Your task to perform on an android device: open a bookmark in the chrome app Image 0: 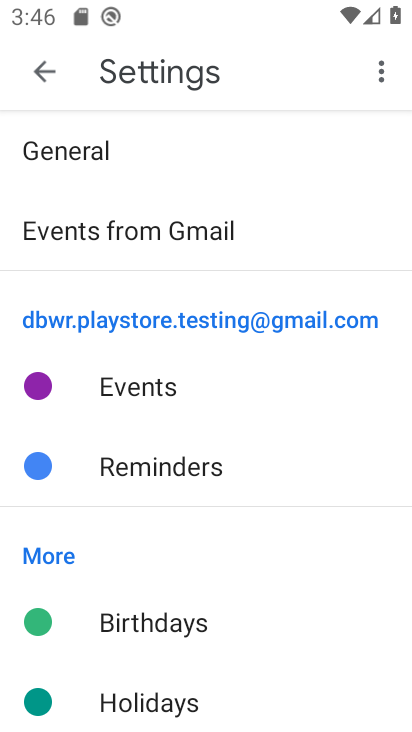
Step 0: press home button
Your task to perform on an android device: open a bookmark in the chrome app Image 1: 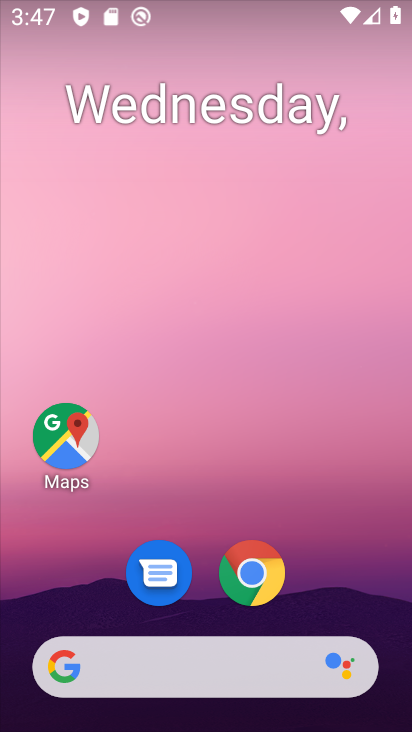
Step 1: click (267, 563)
Your task to perform on an android device: open a bookmark in the chrome app Image 2: 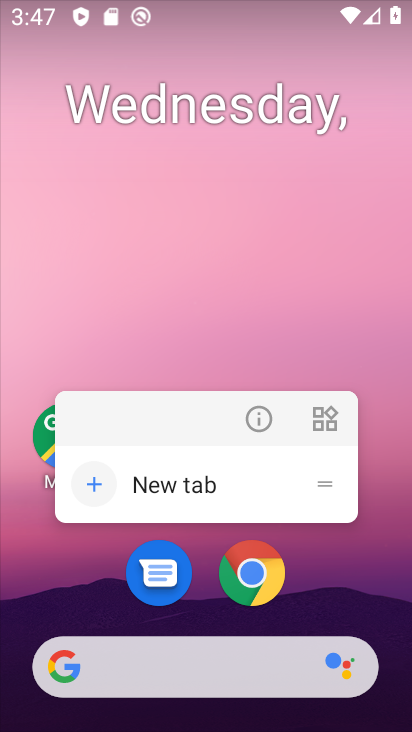
Step 2: click (267, 563)
Your task to perform on an android device: open a bookmark in the chrome app Image 3: 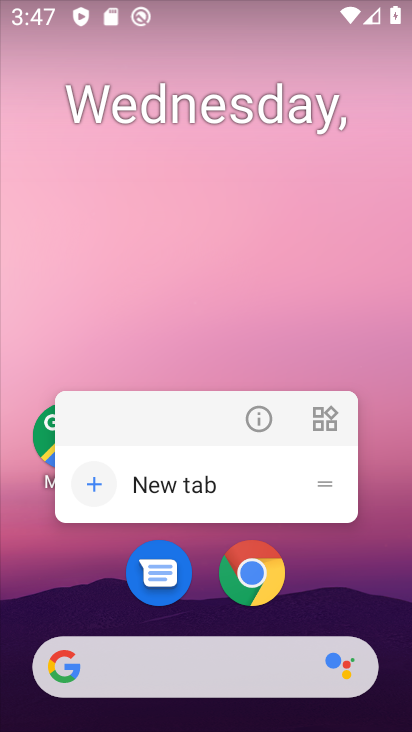
Step 3: click (267, 563)
Your task to perform on an android device: open a bookmark in the chrome app Image 4: 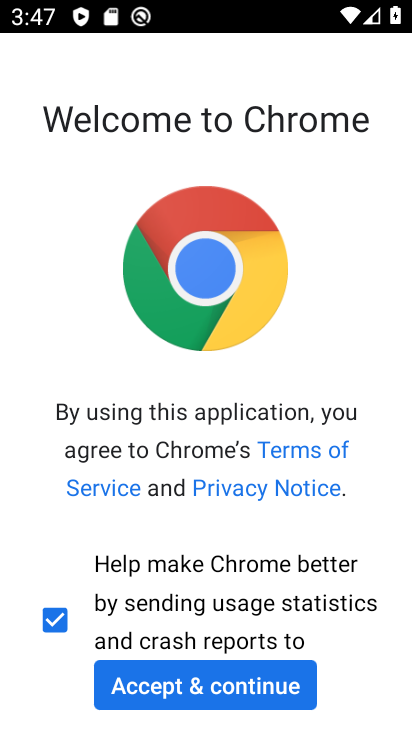
Step 4: click (279, 682)
Your task to perform on an android device: open a bookmark in the chrome app Image 5: 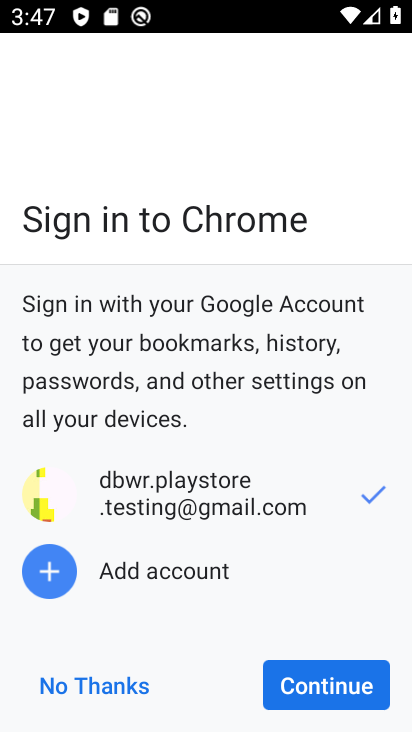
Step 5: click (331, 677)
Your task to perform on an android device: open a bookmark in the chrome app Image 6: 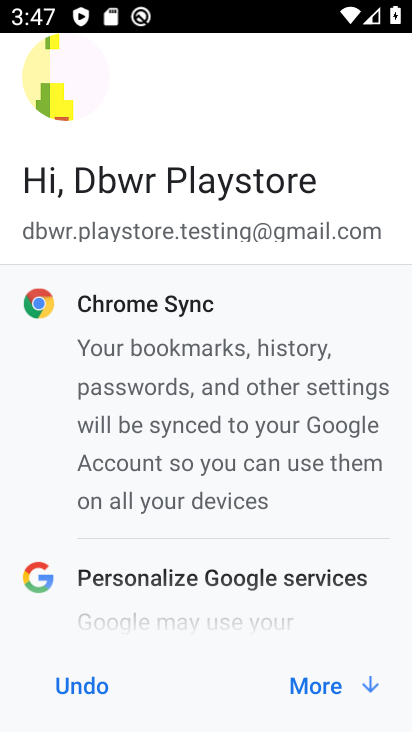
Step 6: click (318, 678)
Your task to perform on an android device: open a bookmark in the chrome app Image 7: 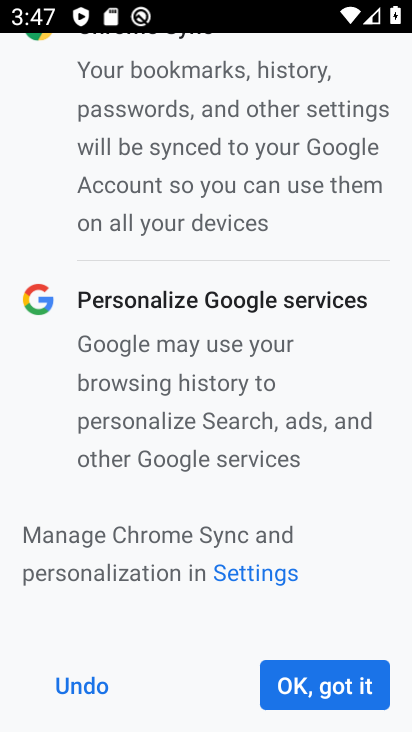
Step 7: click (318, 678)
Your task to perform on an android device: open a bookmark in the chrome app Image 8: 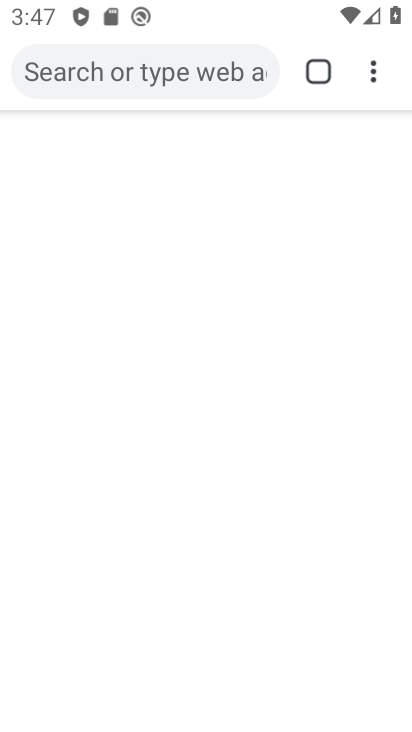
Step 8: click (318, 678)
Your task to perform on an android device: open a bookmark in the chrome app Image 9: 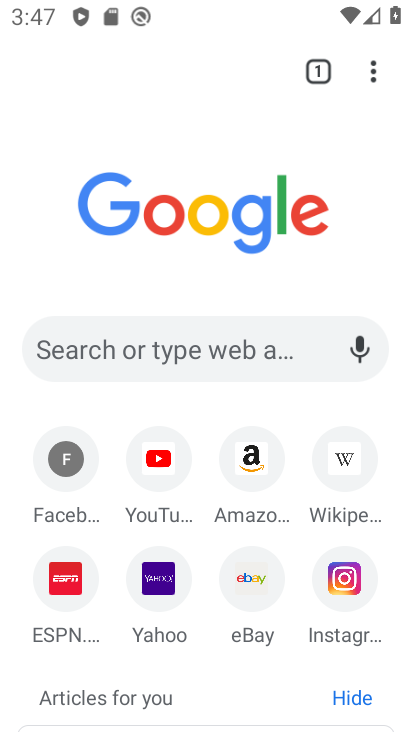
Step 9: click (366, 63)
Your task to perform on an android device: open a bookmark in the chrome app Image 10: 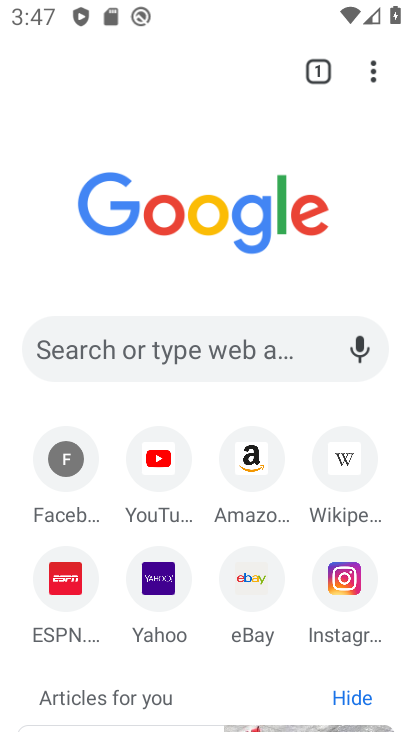
Step 10: click (366, 63)
Your task to perform on an android device: open a bookmark in the chrome app Image 11: 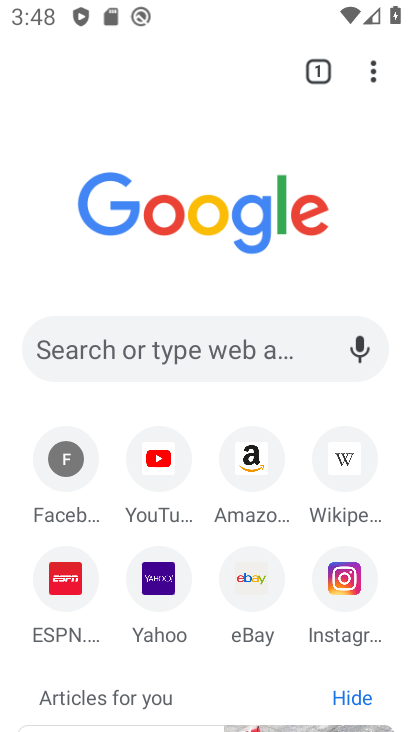
Step 11: click (375, 70)
Your task to perform on an android device: open a bookmark in the chrome app Image 12: 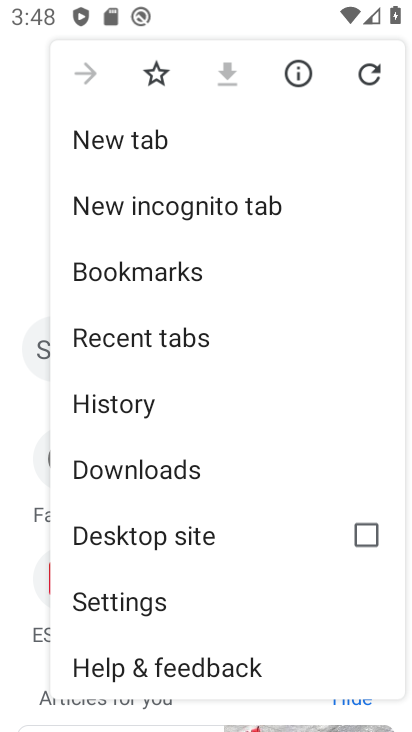
Step 12: click (139, 274)
Your task to perform on an android device: open a bookmark in the chrome app Image 13: 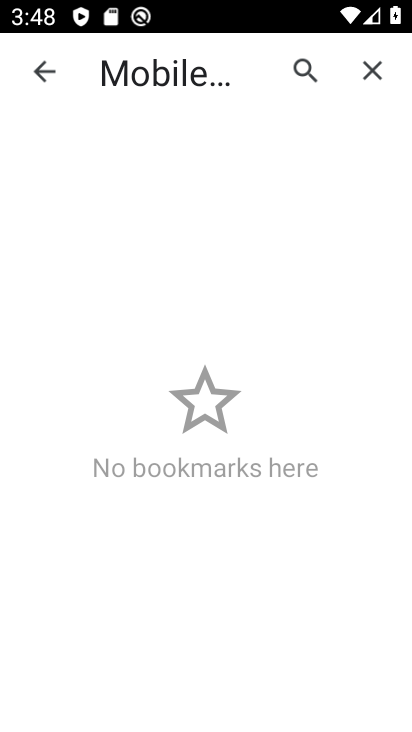
Step 13: task complete